Your task to perform on an android device: Open Chrome and go to settings Image 0: 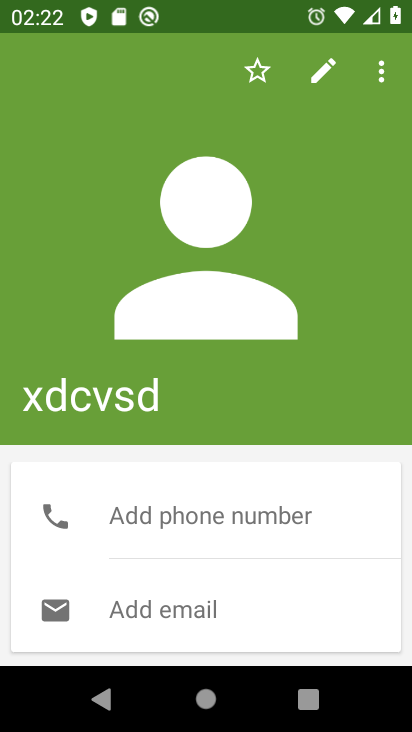
Step 0: press home button
Your task to perform on an android device: Open Chrome and go to settings Image 1: 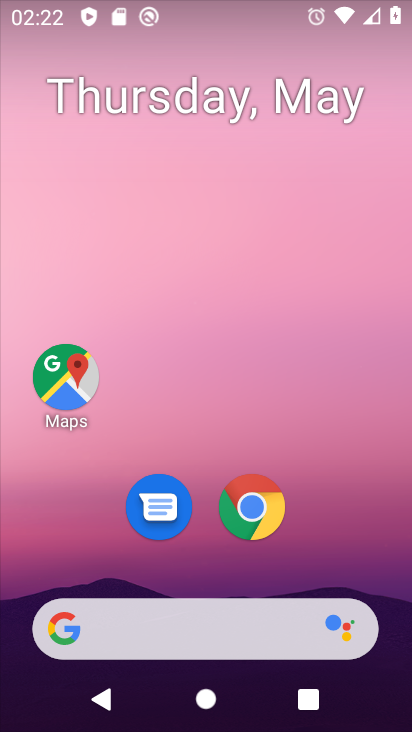
Step 1: click (333, 528)
Your task to perform on an android device: Open Chrome and go to settings Image 2: 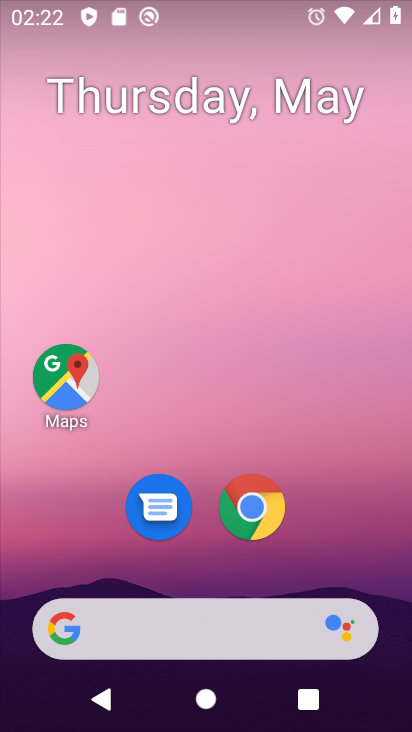
Step 2: click (265, 508)
Your task to perform on an android device: Open Chrome and go to settings Image 3: 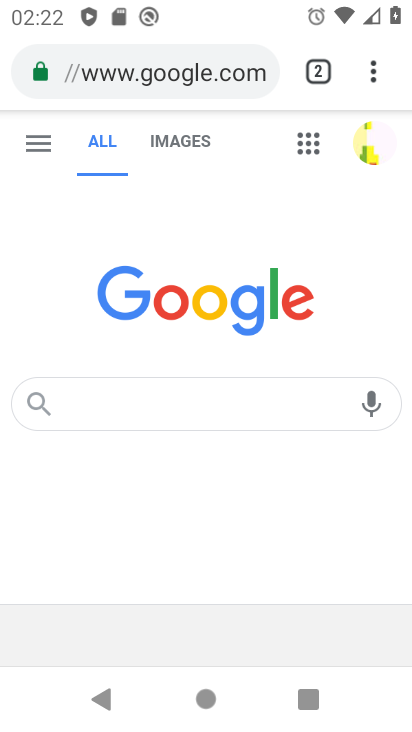
Step 3: click (392, 76)
Your task to perform on an android device: Open Chrome and go to settings Image 4: 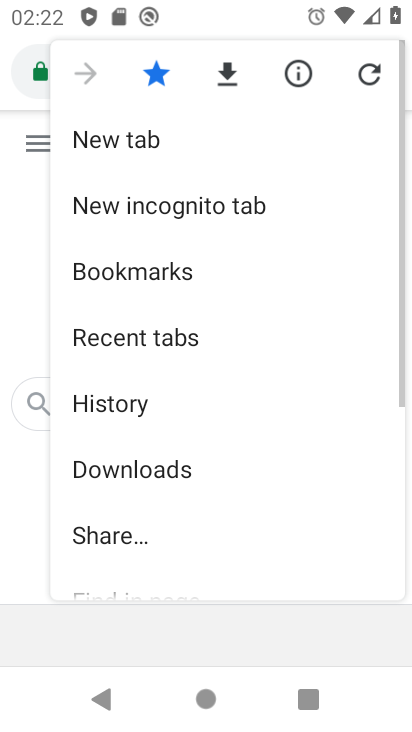
Step 4: drag from (278, 474) to (223, 238)
Your task to perform on an android device: Open Chrome and go to settings Image 5: 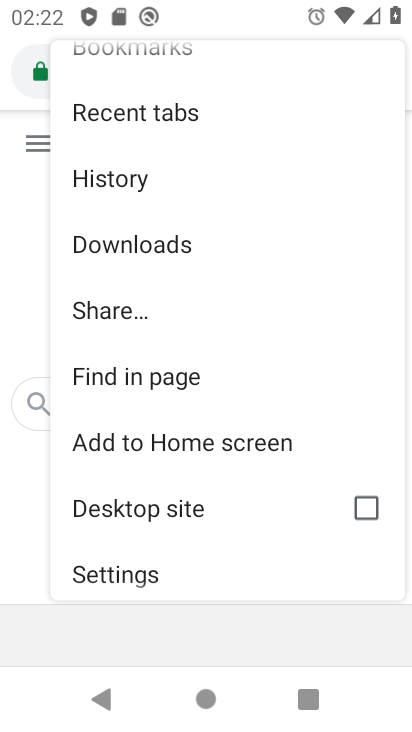
Step 5: click (210, 548)
Your task to perform on an android device: Open Chrome and go to settings Image 6: 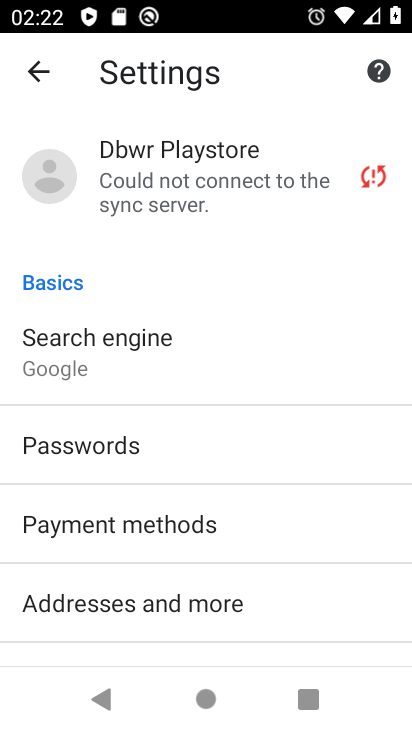
Step 6: task complete